Your task to perform on an android device: turn on sleep mode Image 0: 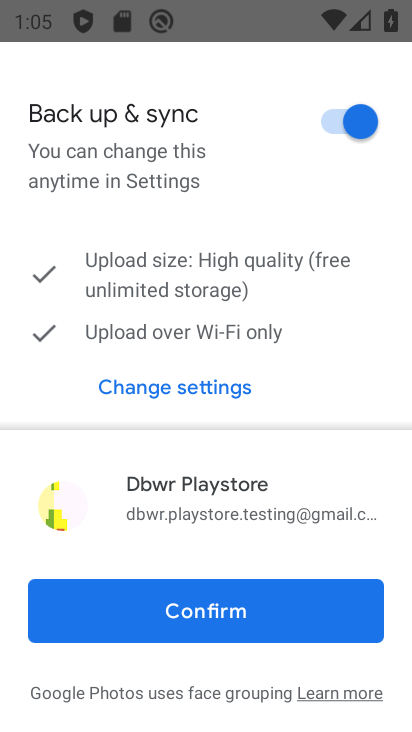
Step 0: click (251, 621)
Your task to perform on an android device: turn on sleep mode Image 1: 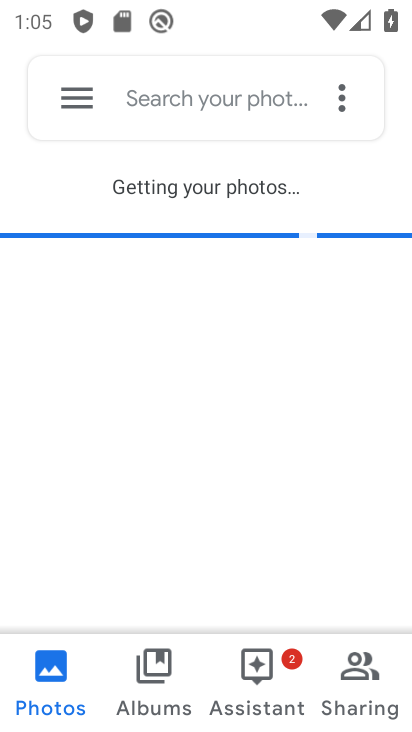
Step 1: click (214, 89)
Your task to perform on an android device: turn on sleep mode Image 2: 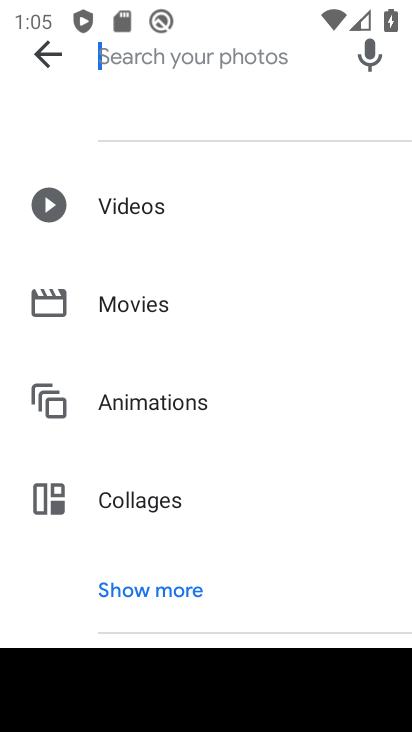
Step 2: press home button
Your task to perform on an android device: turn on sleep mode Image 3: 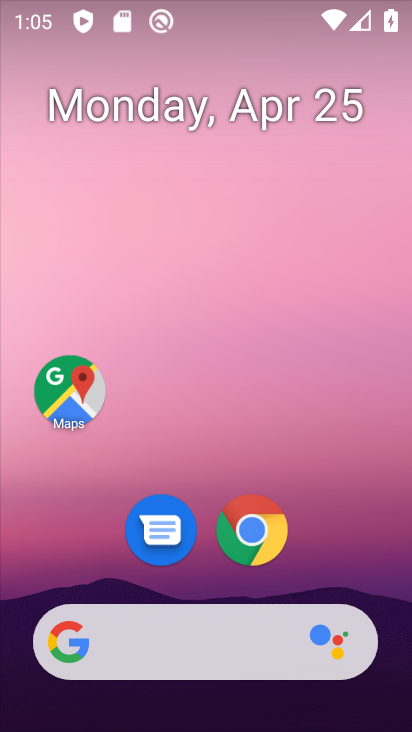
Step 3: drag from (386, 569) to (325, 113)
Your task to perform on an android device: turn on sleep mode Image 4: 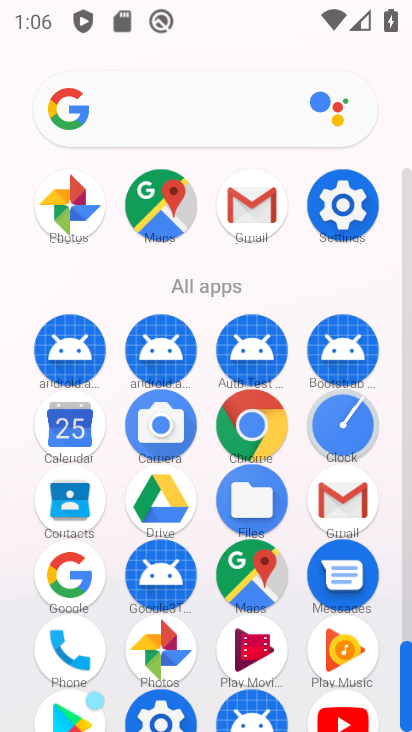
Step 4: click (335, 226)
Your task to perform on an android device: turn on sleep mode Image 5: 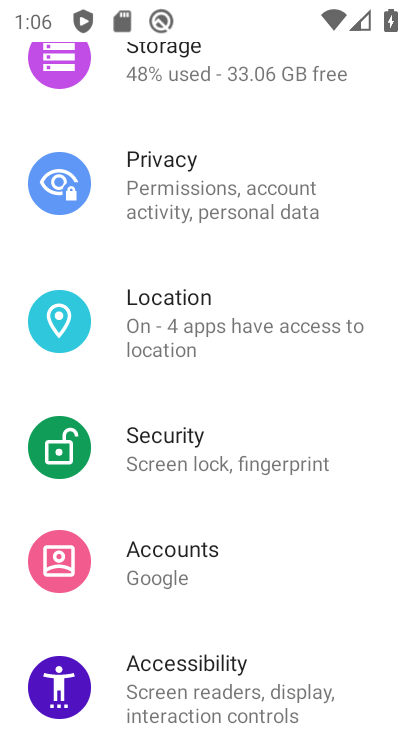
Step 5: drag from (305, 171) to (251, 592)
Your task to perform on an android device: turn on sleep mode Image 6: 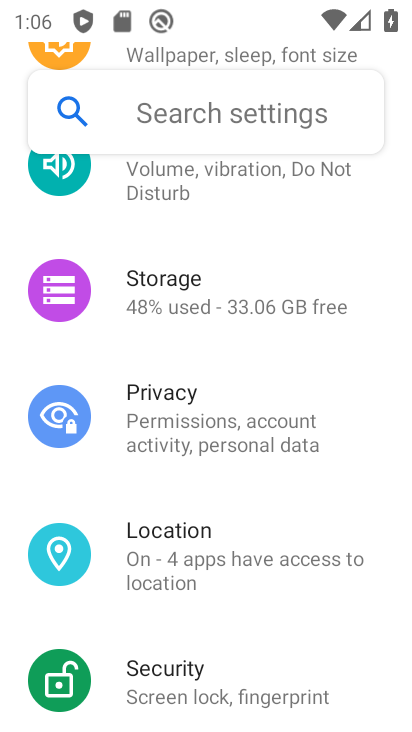
Step 6: click (294, 122)
Your task to perform on an android device: turn on sleep mode Image 7: 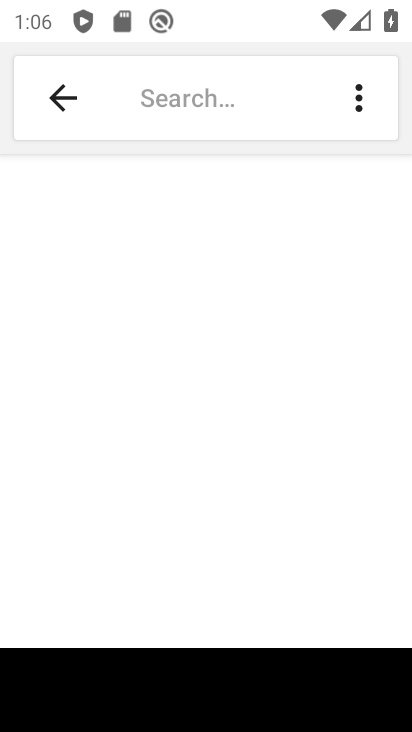
Step 7: type "sleep mode"
Your task to perform on an android device: turn on sleep mode Image 8: 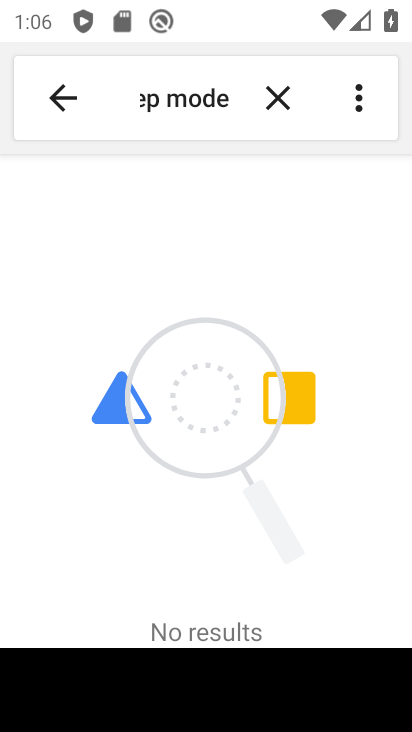
Step 8: task complete